Your task to perform on an android device: Open the Play Movies app and select the watchlist tab. Image 0: 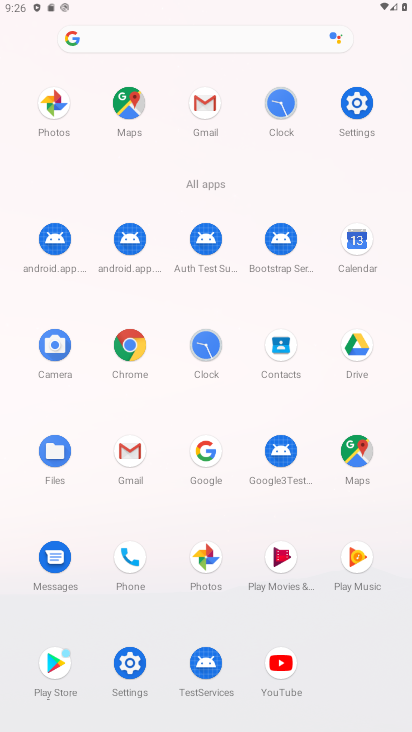
Step 0: click (283, 557)
Your task to perform on an android device: Open the Play Movies app and select the watchlist tab. Image 1: 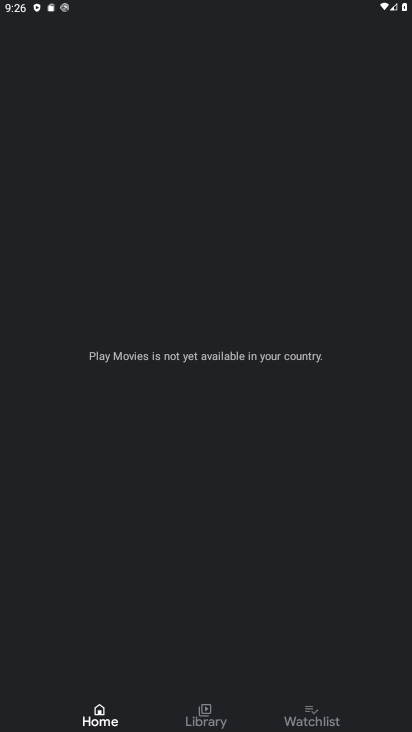
Step 1: click (314, 722)
Your task to perform on an android device: Open the Play Movies app and select the watchlist tab. Image 2: 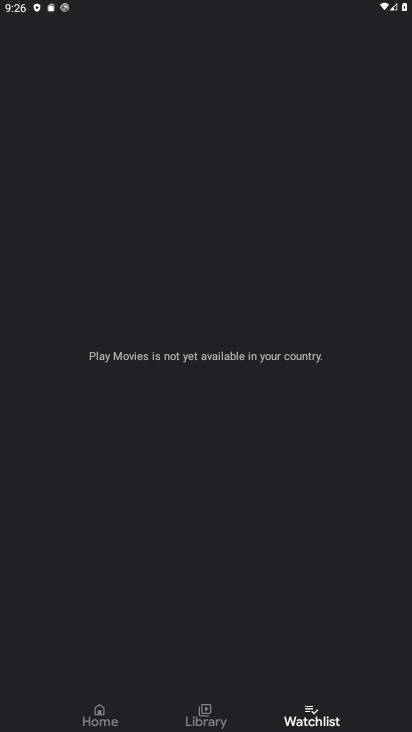
Step 2: task complete